Your task to perform on an android device: Go to wifi settings Image 0: 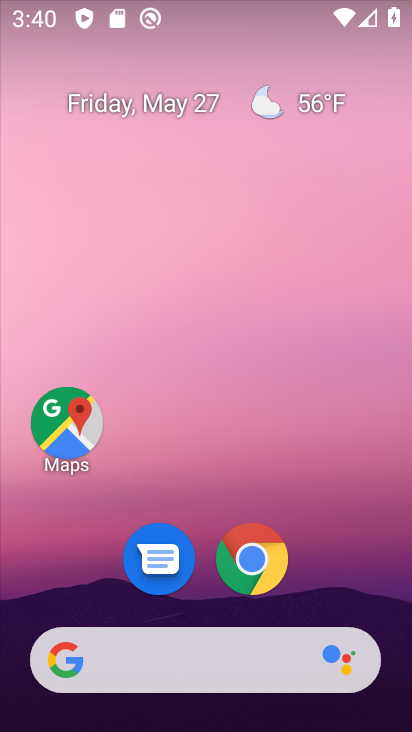
Step 0: drag from (76, 595) to (198, 161)
Your task to perform on an android device: Go to wifi settings Image 1: 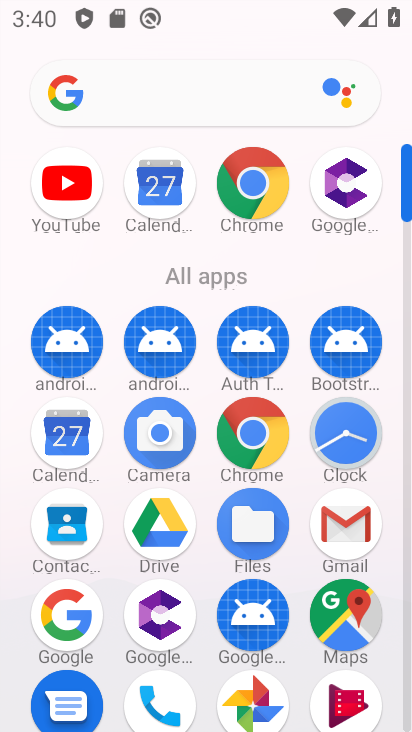
Step 1: drag from (169, 608) to (232, 396)
Your task to perform on an android device: Go to wifi settings Image 2: 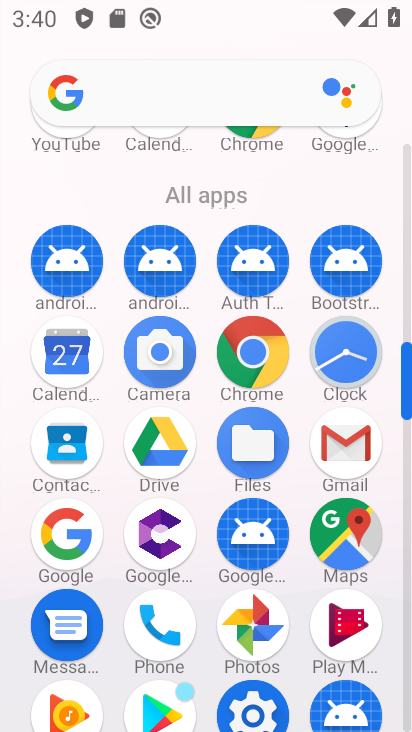
Step 2: click (267, 694)
Your task to perform on an android device: Go to wifi settings Image 3: 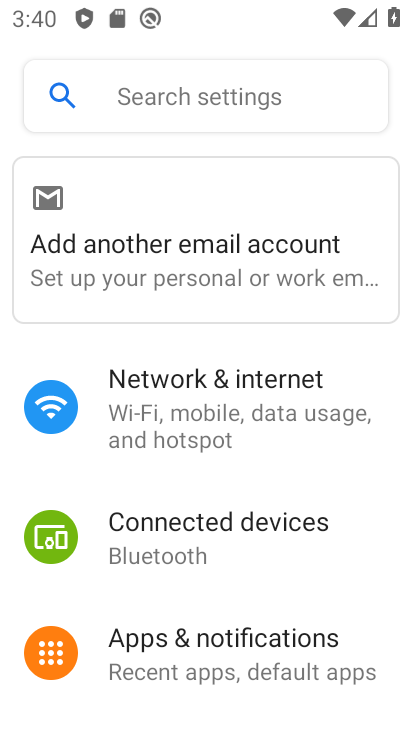
Step 3: click (268, 430)
Your task to perform on an android device: Go to wifi settings Image 4: 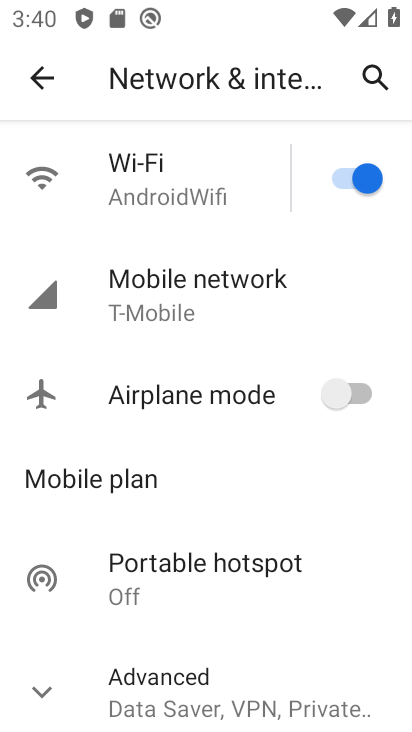
Step 4: click (202, 217)
Your task to perform on an android device: Go to wifi settings Image 5: 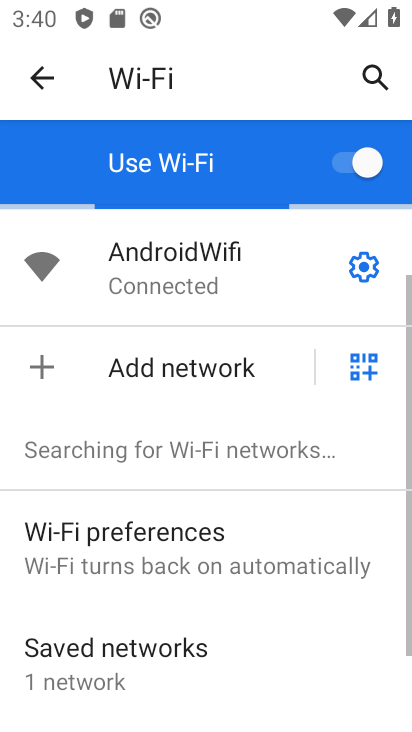
Step 5: task complete